Your task to perform on an android device: stop showing notifications on the lock screen Image 0: 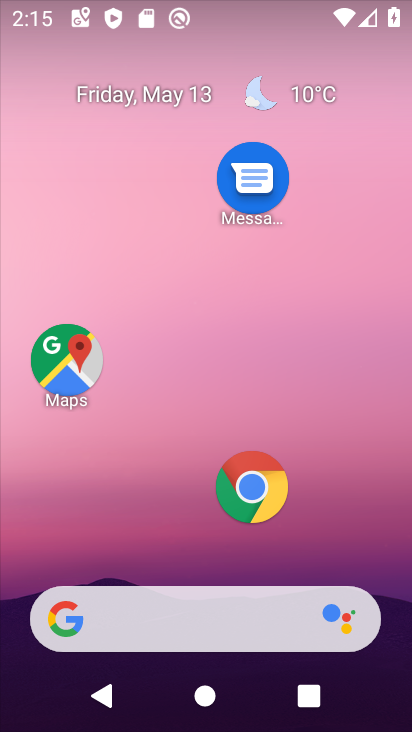
Step 0: drag from (142, 565) to (159, 127)
Your task to perform on an android device: stop showing notifications on the lock screen Image 1: 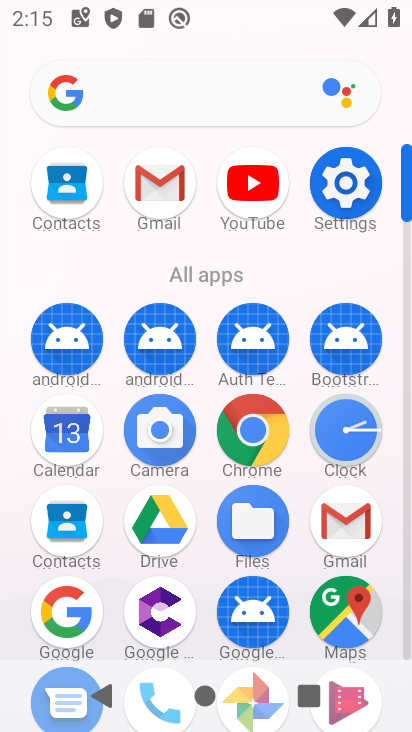
Step 1: click (344, 188)
Your task to perform on an android device: stop showing notifications on the lock screen Image 2: 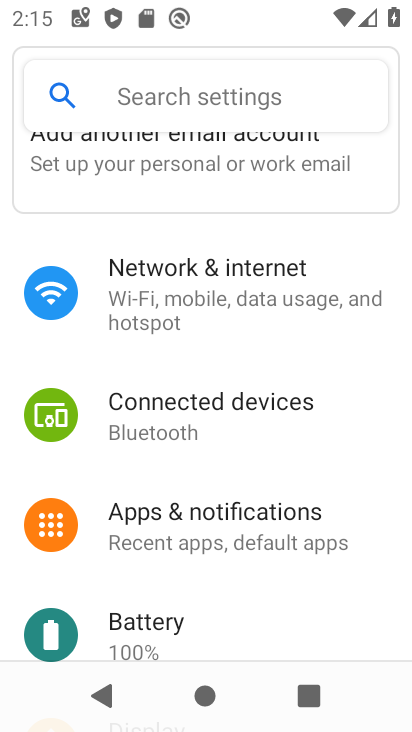
Step 2: drag from (226, 588) to (236, 270)
Your task to perform on an android device: stop showing notifications on the lock screen Image 3: 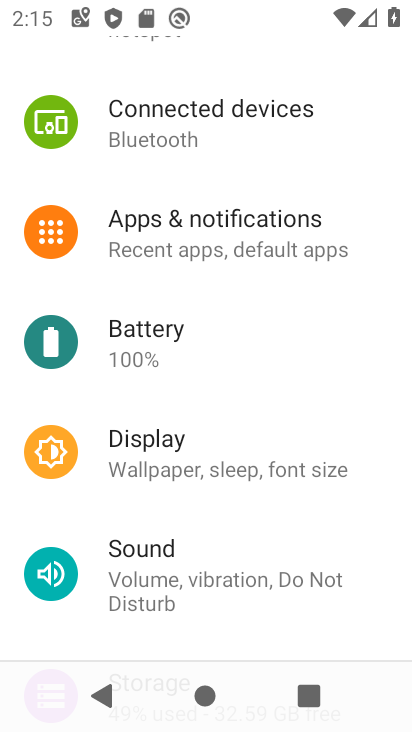
Step 3: drag from (214, 625) to (250, 344)
Your task to perform on an android device: stop showing notifications on the lock screen Image 4: 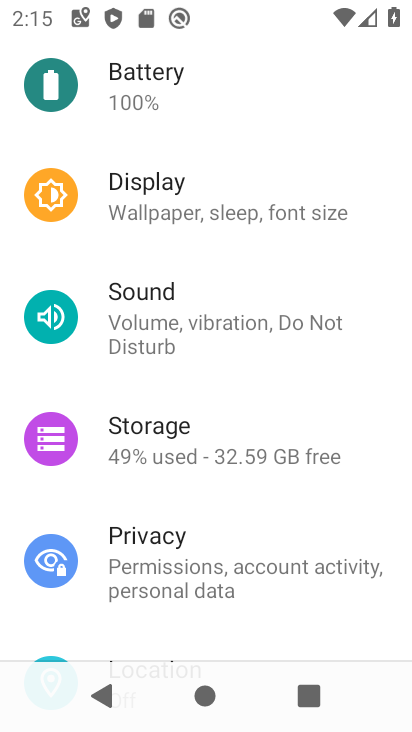
Step 4: drag from (255, 631) to (260, 355)
Your task to perform on an android device: stop showing notifications on the lock screen Image 5: 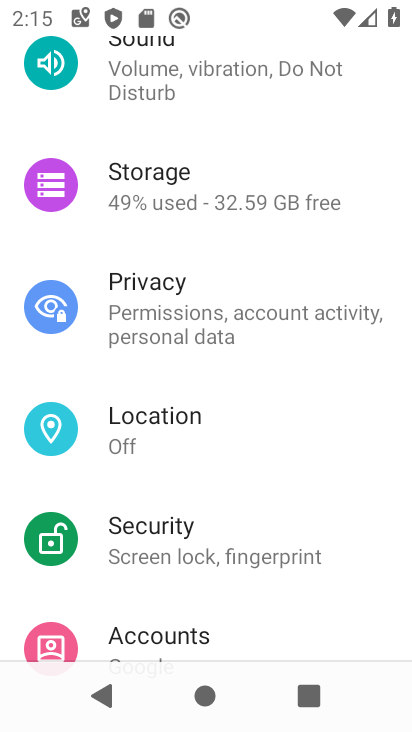
Step 5: drag from (260, 596) to (315, 281)
Your task to perform on an android device: stop showing notifications on the lock screen Image 6: 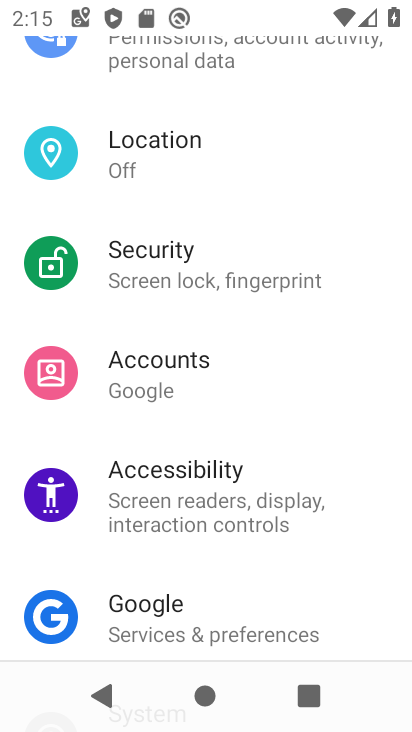
Step 6: drag from (255, 290) to (257, 568)
Your task to perform on an android device: stop showing notifications on the lock screen Image 7: 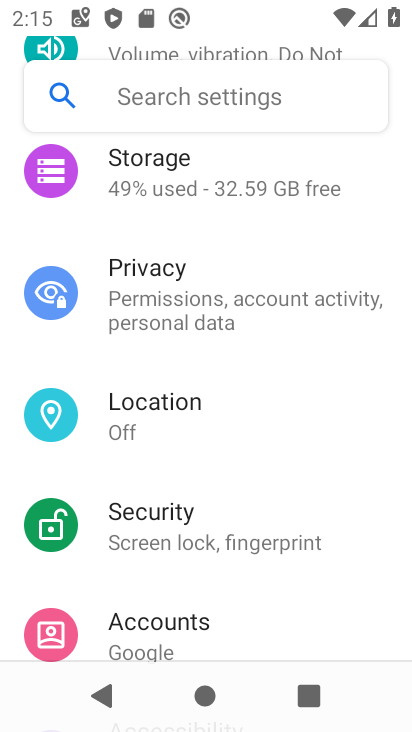
Step 7: drag from (267, 255) to (265, 590)
Your task to perform on an android device: stop showing notifications on the lock screen Image 8: 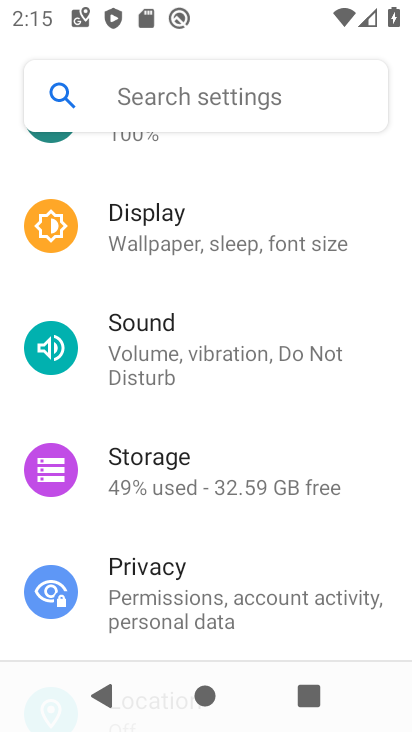
Step 8: drag from (240, 196) to (223, 481)
Your task to perform on an android device: stop showing notifications on the lock screen Image 9: 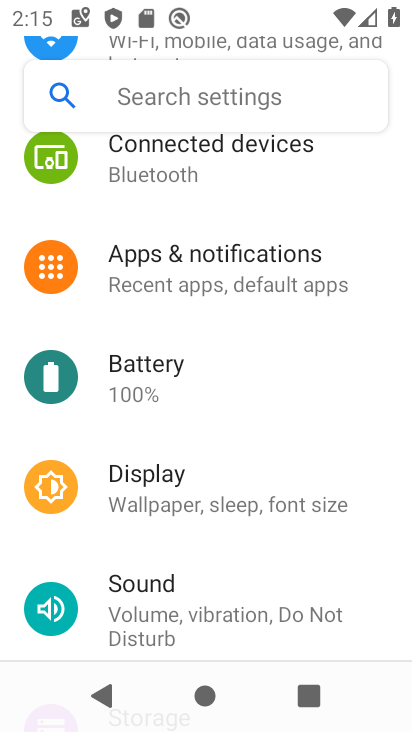
Step 9: click (185, 268)
Your task to perform on an android device: stop showing notifications on the lock screen Image 10: 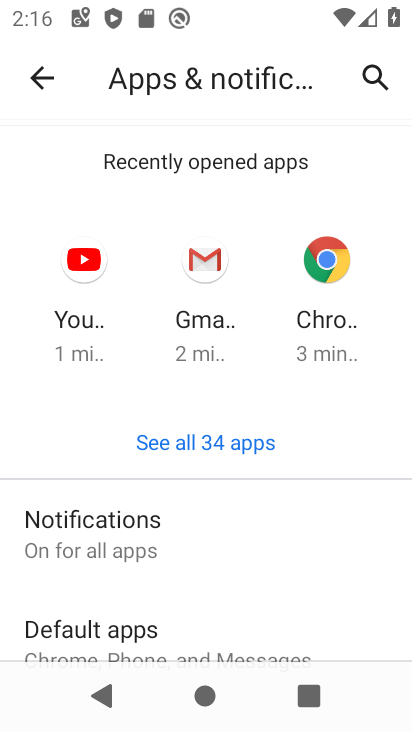
Step 10: drag from (208, 546) to (208, 282)
Your task to perform on an android device: stop showing notifications on the lock screen Image 11: 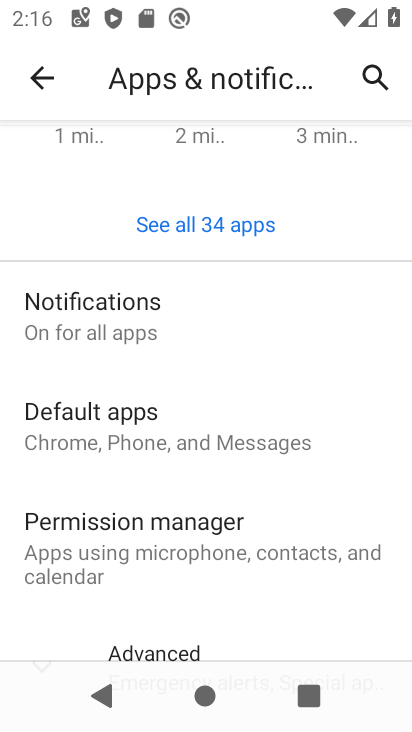
Step 11: drag from (201, 456) to (227, 275)
Your task to perform on an android device: stop showing notifications on the lock screen Image 12: 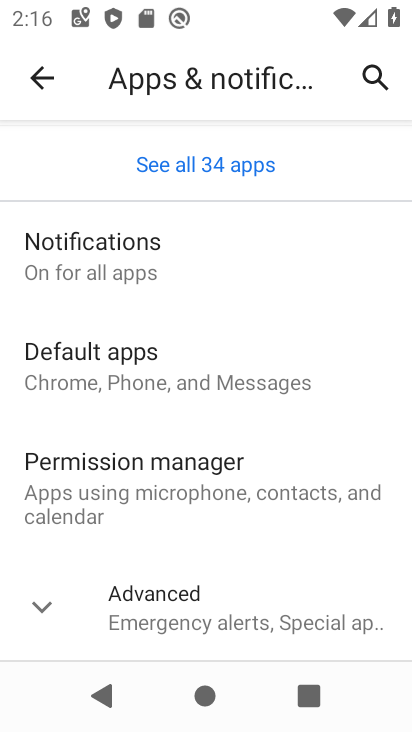
Step 12: click (98, 271)
Your task to perform on an android device: stop showing notifications on the lock screen Image 13: 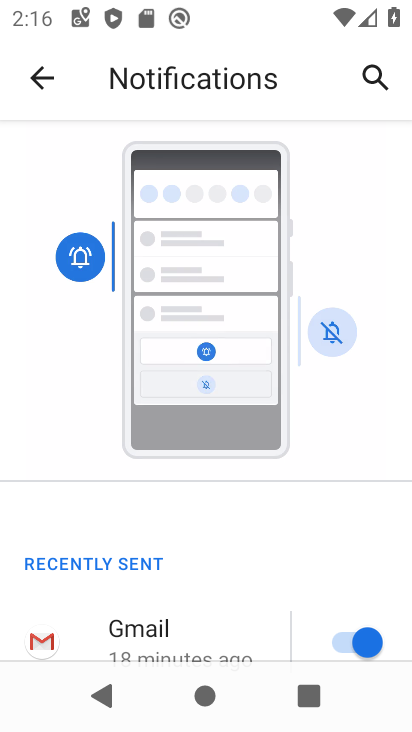
Step 13: drag from (232, 562) to (268, 182)
Your task to perform on an android device: stop showing notifications on the lock screen Image 14: 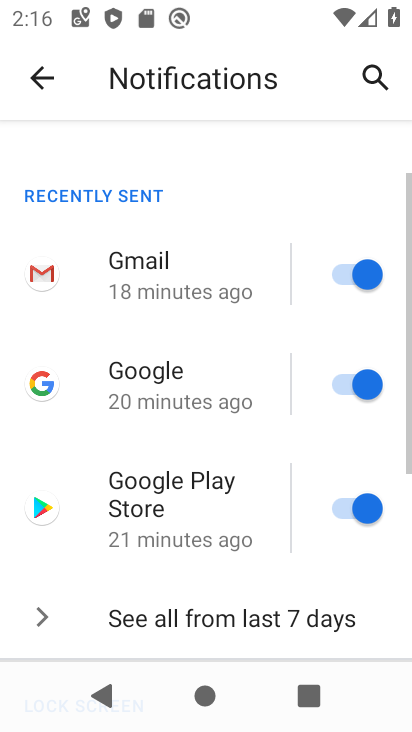
Step 14: drag from (208, 592) to (337, 238)
Your task to perform on an android device: stop showing notifications on the lock screen Image 15: 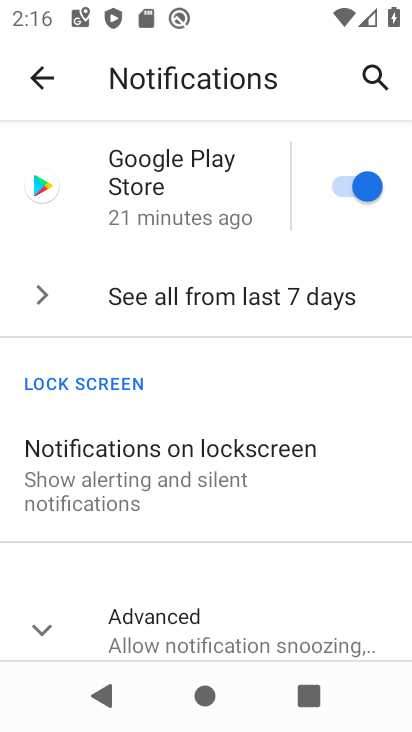
Step 15: click (109, 476)
Your task to perform on an android device: stop showing notifications on the lock screen Image 16: 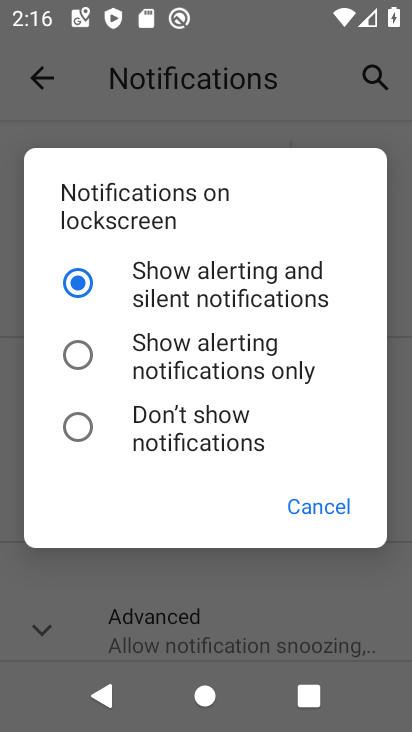
Step 16: click (150, 439)
Your task to perform on an android device: stop showing notifications on the lock screen Image 17: 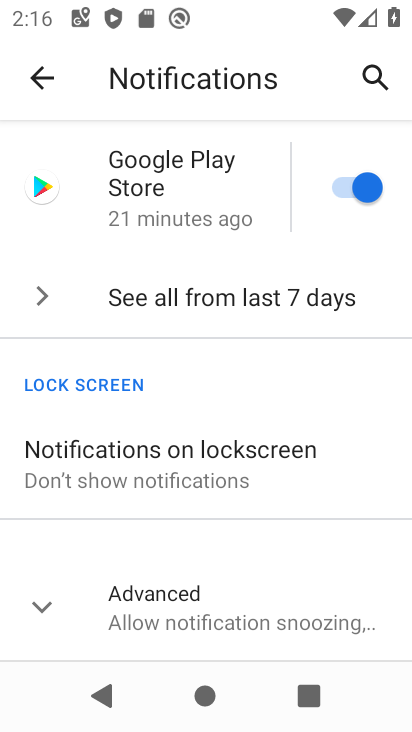
Step 17: task complete